Your task to perform on an android device: Open the map Image 0: 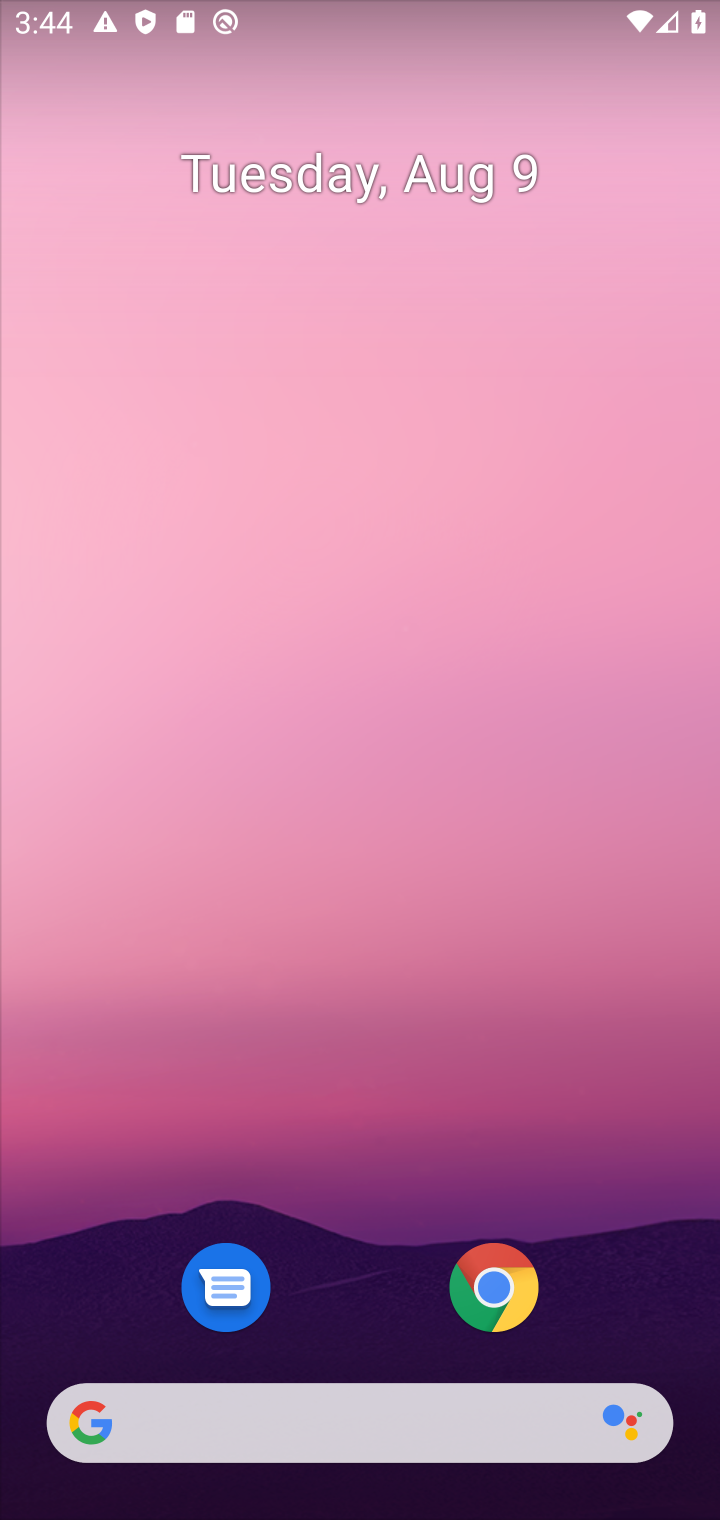
Step 0: drag from (345, 769) to (311, 315)
Your task to perform on an android device: Open the map Image 1: 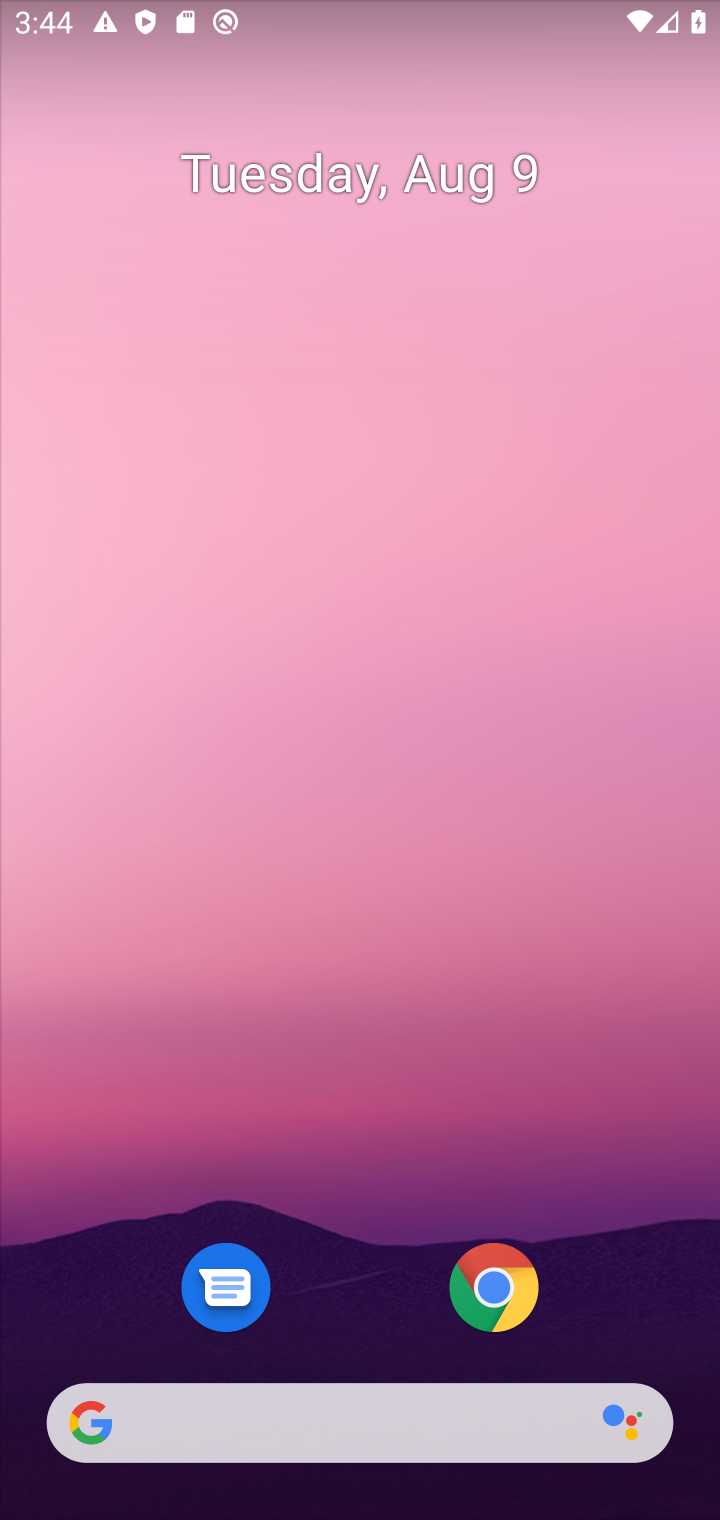
Step 1: drag from (353, 312) to (363, 191)
Your task to perform on an android device: Open the map Image 2: 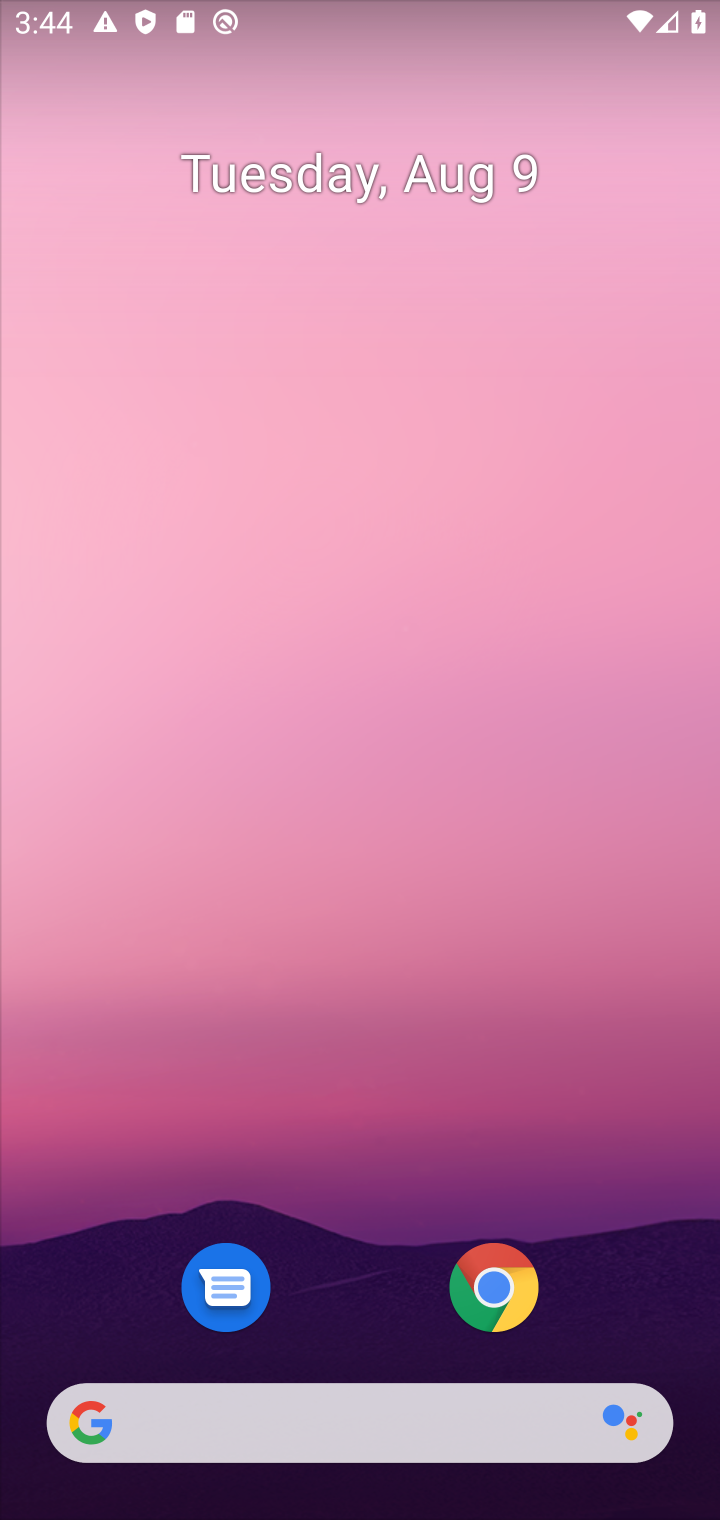
Step 2: drag from (341, 1242) to (278, 440)
Your task to perform on an android device: Open the map Image 3: 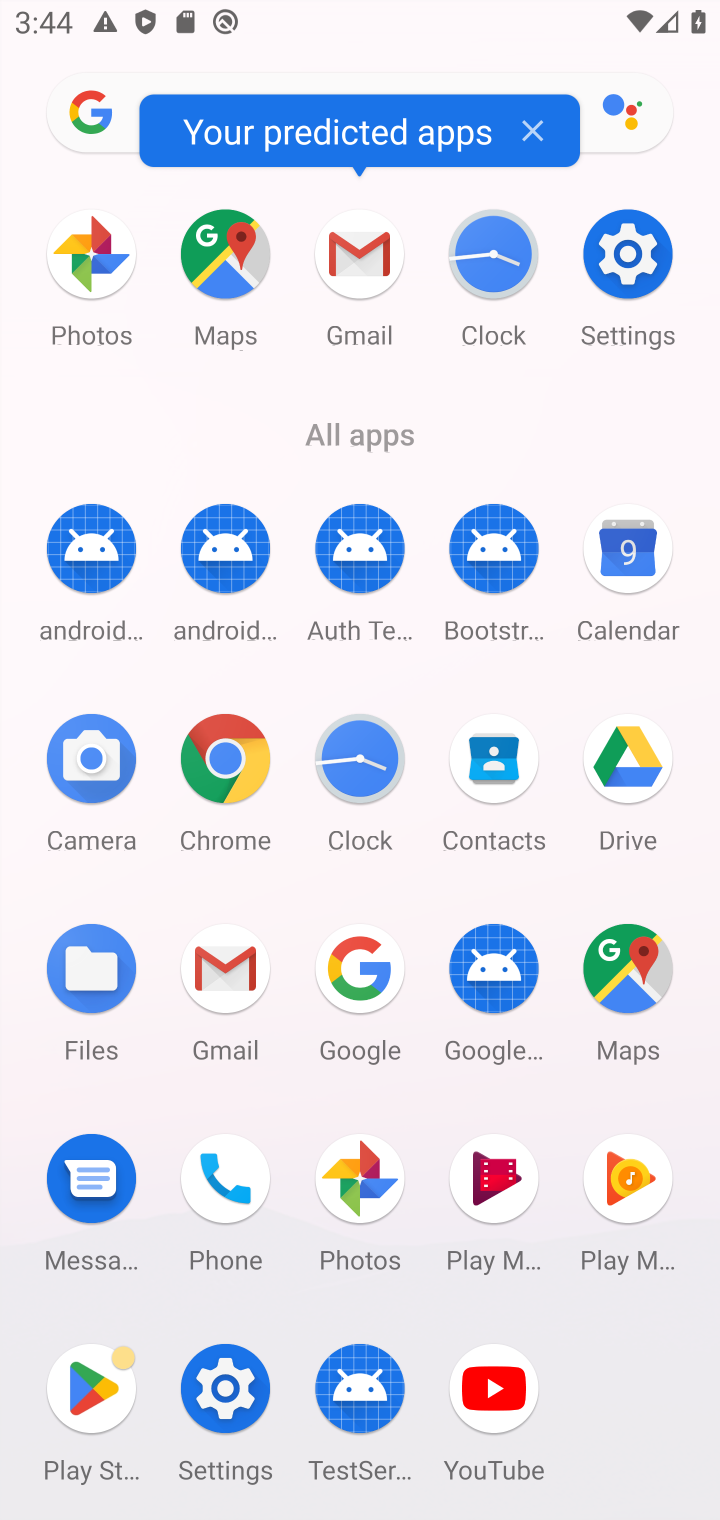
Step 3: click (220, 260)
Your task to perform on an android device: Open the map Image 4: 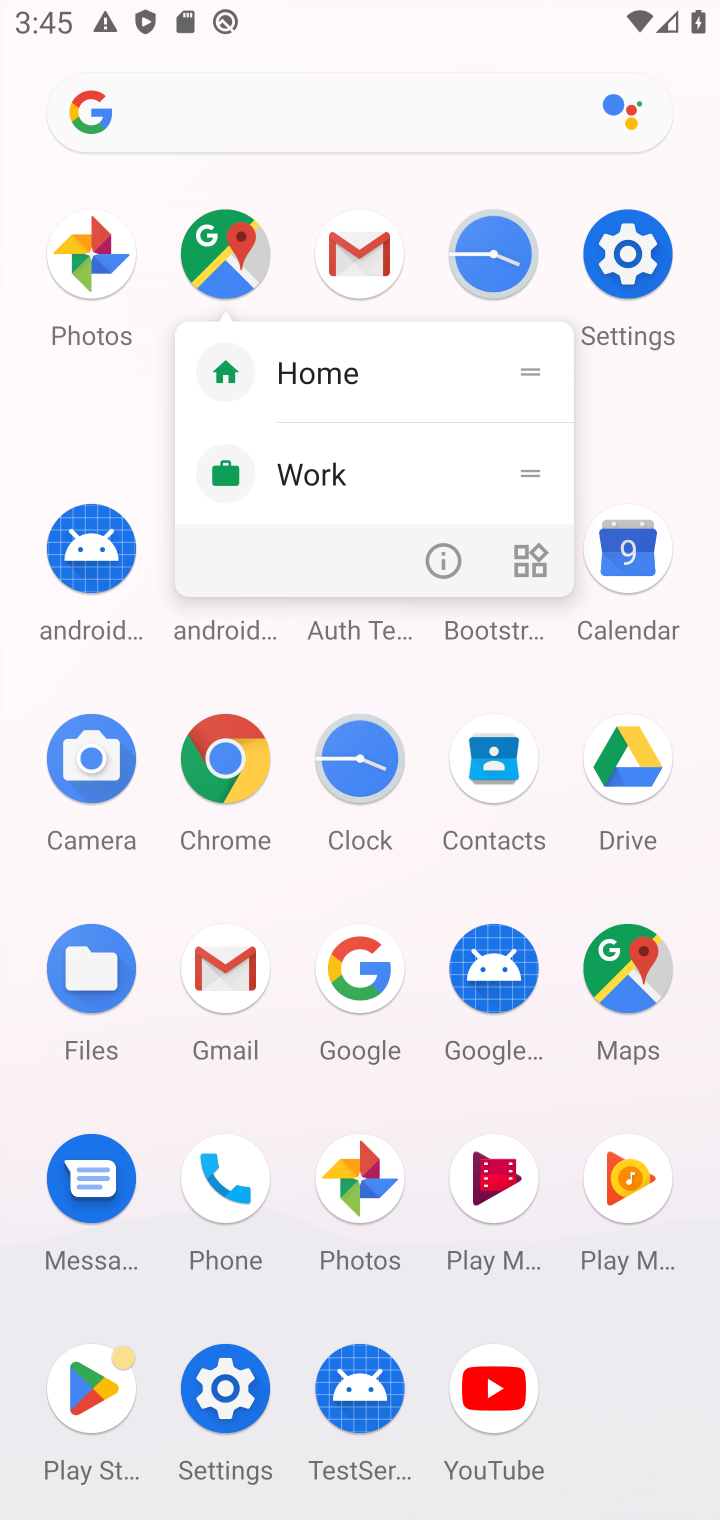
Step 4: click (254, 286)
Your task to perform on an android device: Open the map Image 5: 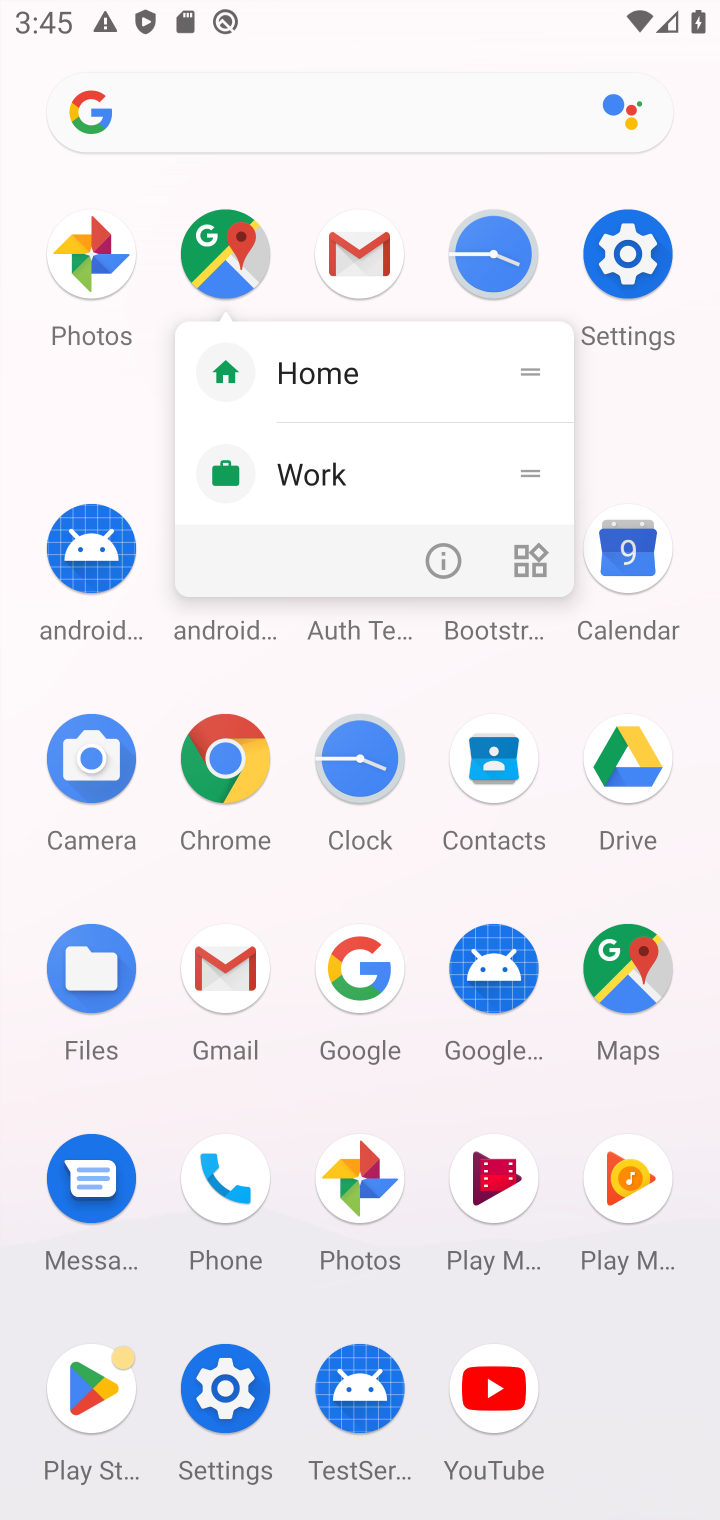
Step 5: click (259, 290)
Your task to perform on an android device: Open the map Image 6: 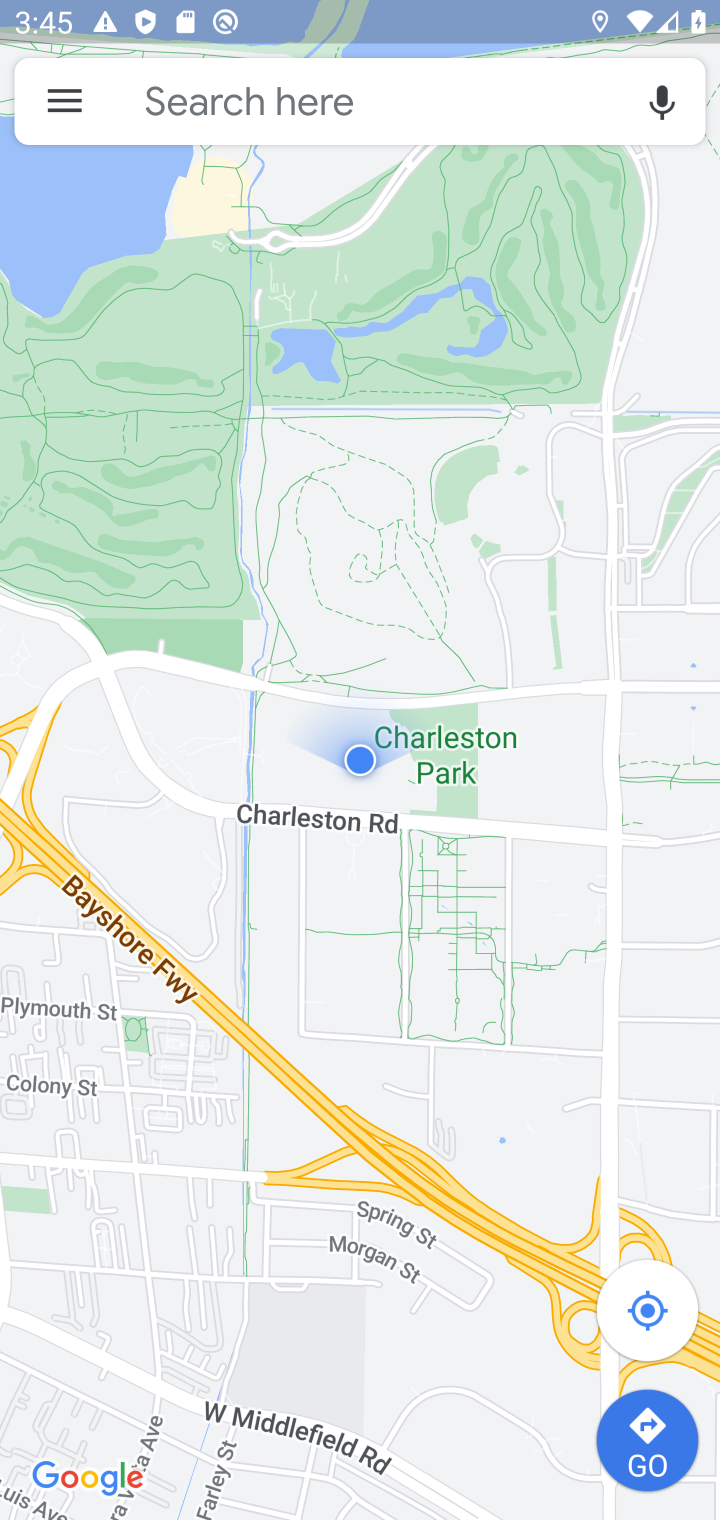
Step 6: task complete